Your task to perform on an android device: Open the calendar app, open the side menu, and click the "Day" option Image 0: 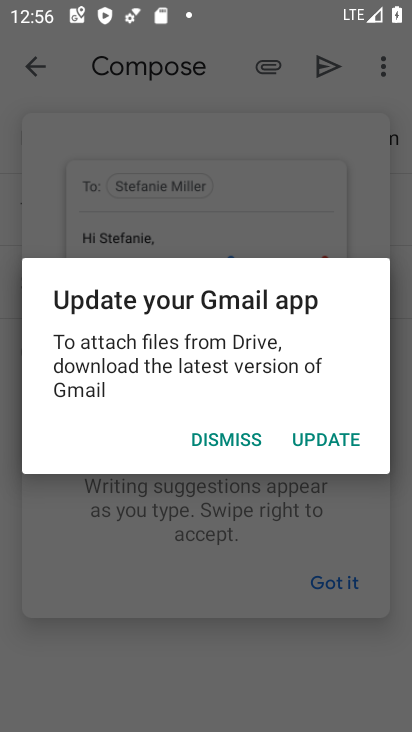
Step 0: press home button
Your task to perform on an android device: Open the calendar app, open the side menu, and click the "Day" option Image 1: 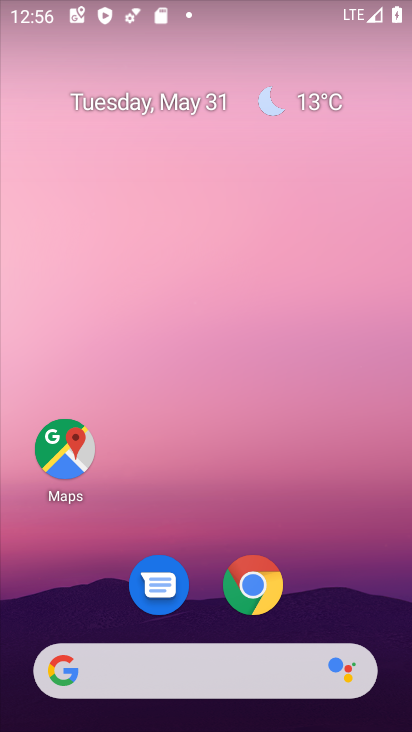
Step 1: drag from (235, 529) to (211, 111)
Your task to perform on an android device: Open the calendar app, open the side menu, and click the "Day" option Image 2: 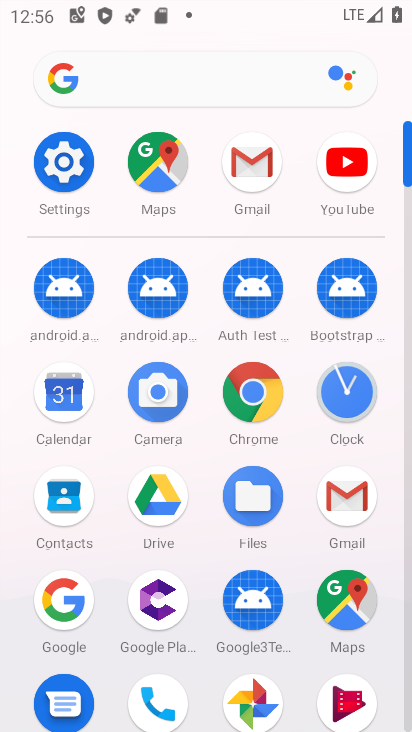
Step 2: click (72, 399)
Your task to perform on an android device: Open the calendar app, open the side menu, and click the "Day" option Image 3: 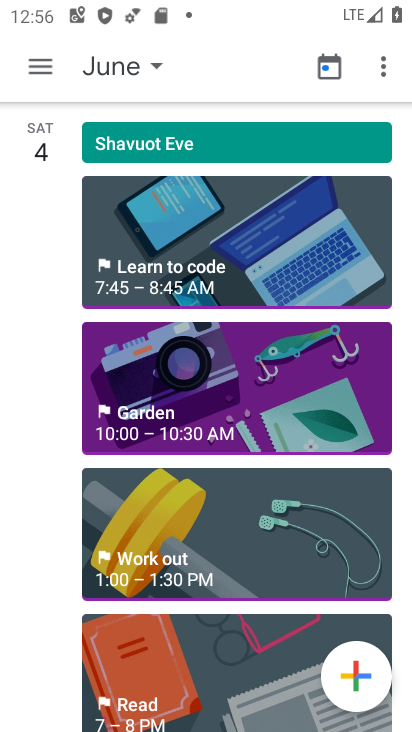
Step 3: click (40, 66)
Your task to perform on an android device: Open the calendar app, open the side menu, and click the "Day" option Image 4: 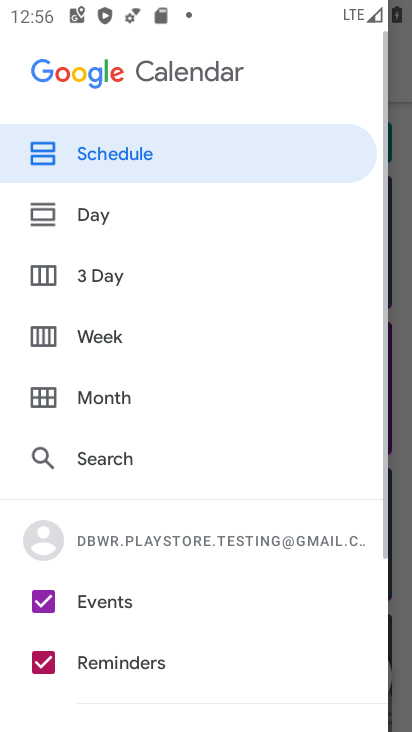
Step 4: click (43, 217)
Your task to perform on an android device: Open the calendar app, open the side menu, and click the "Day" option Image 5: 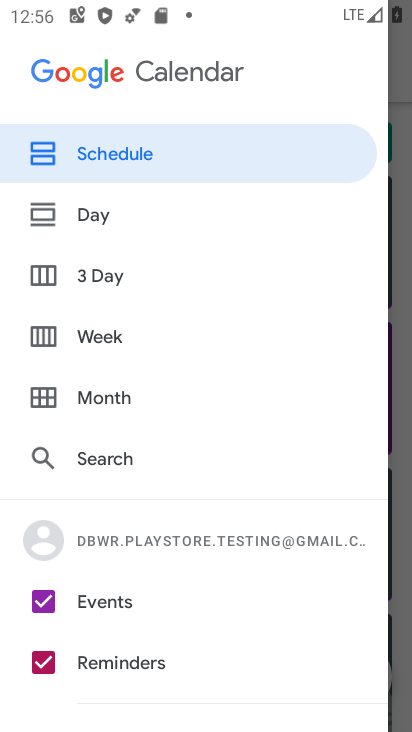
Step 5: click (43, 217)
Your task to perform on an android device: Open the calendar app, open the side menu, and click the "Day" option Image 6: 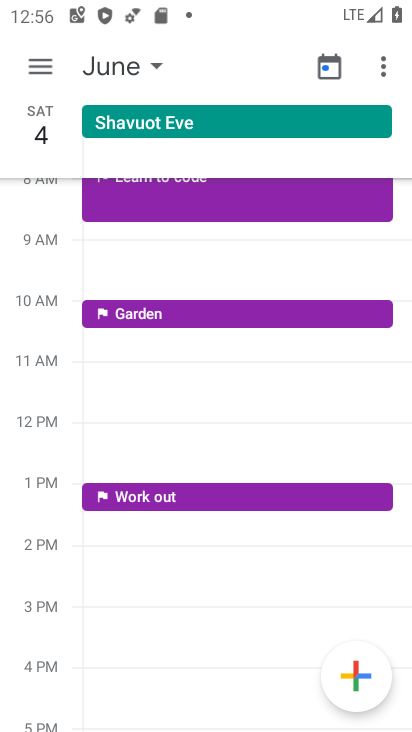
Step 6: task complete